Your task to perform on an android device: Go to location settings Image 0: 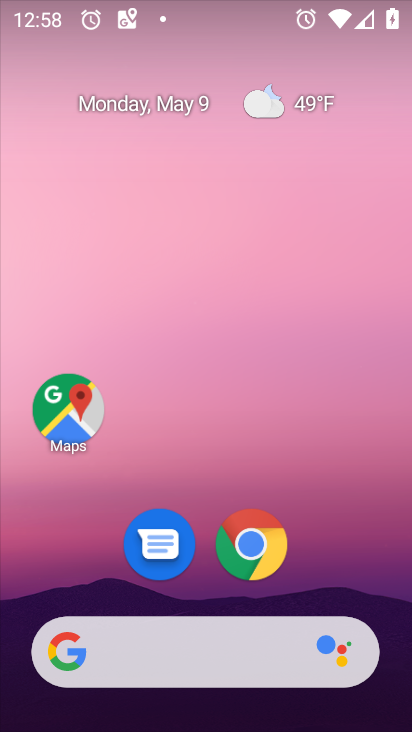
Step 0: drag from (259, 638) to (228, 29)
Your task to perform on an android device: Go to location settings Image 1: 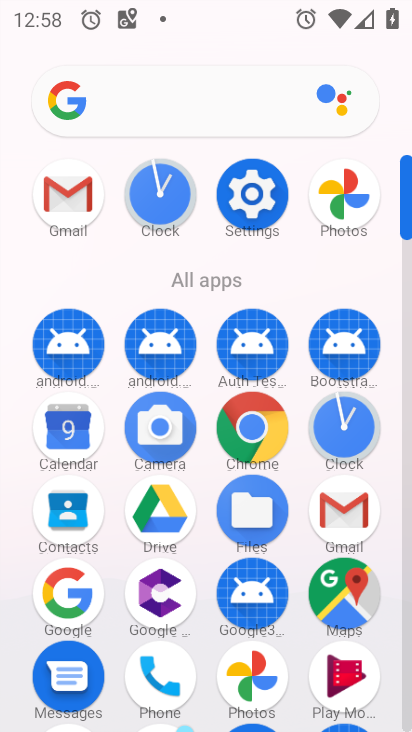
Step 1: click (230, 198)
Your task to perform on an android device: Go to location settings Image 2: 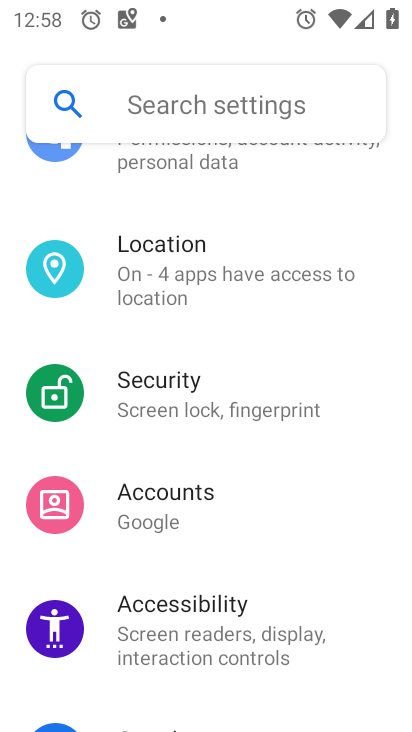
Step 2: drag from (153, 578) to (138, 216)
Your task to perform on an android device: Go to location settings Image 3: 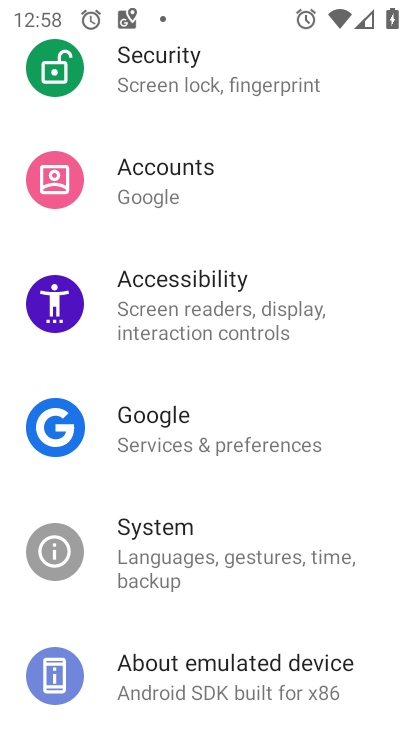
Step 3: drag from (261, 116) to (210, 674)
Your task to perform on an android device: Go to location settings Image 4: 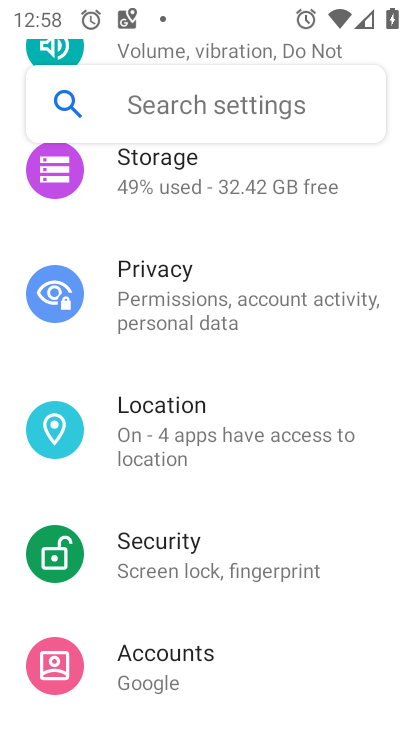
Step 4: click (203, 419)
Your task to perform on an android device: Go to location settings Image 5: 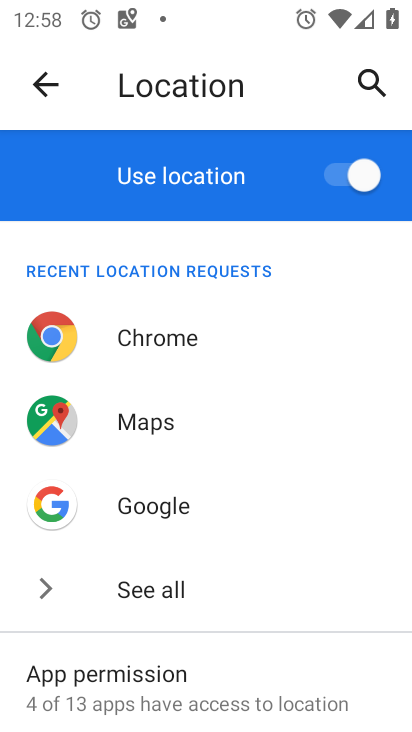
Step 5: task complete